Your task to perform on an android device: Open the stopwatch Image 0: 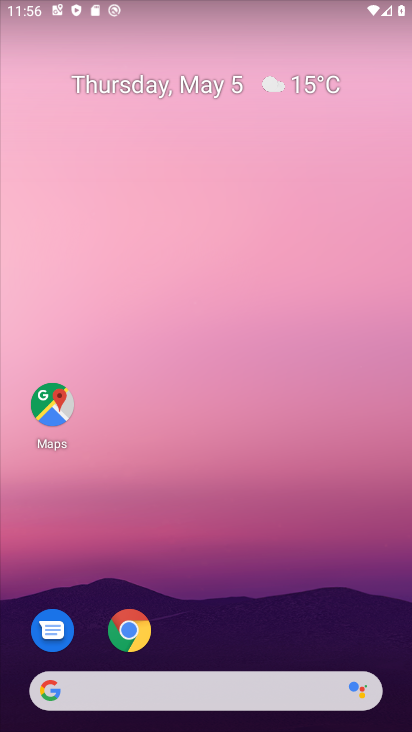
Step 0: drag from (350, 611) to (243, 24)
Your task to perform on an android device: Open the stopwatch Image 1: 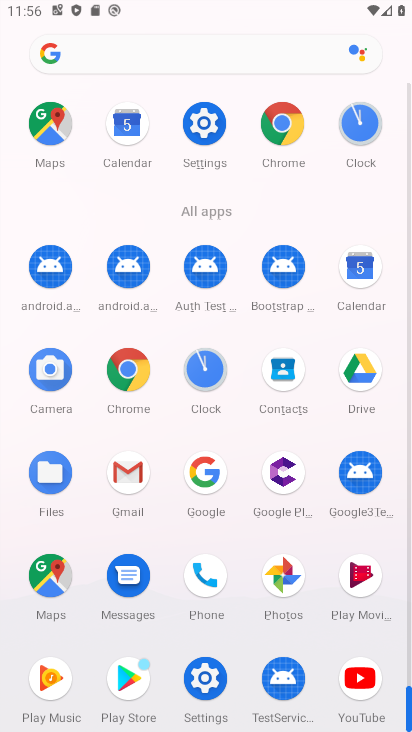
Step 1: click (201, 361)
Your task to perform on an android device: Open the stopwatch Image 2: 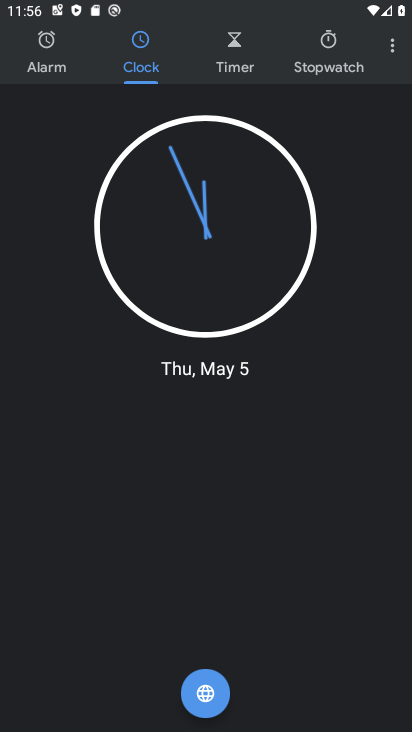
Step 2: click (331, 44)
Your task to perform on an android device: Open the stopwatch Image 3: 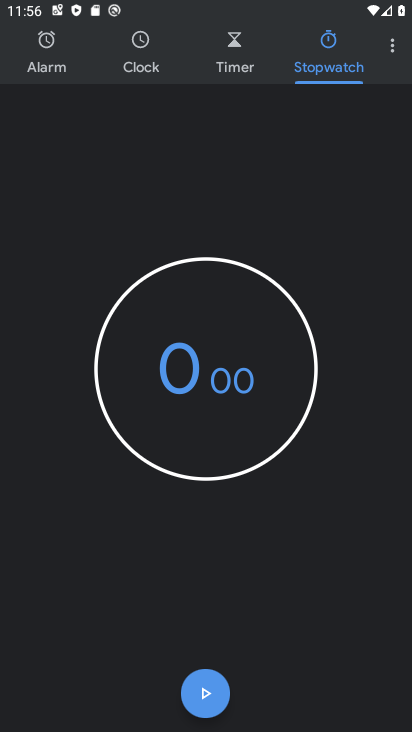
Step 3: task complete